Your task to perform on an android device: What's the weather today? Image 0: 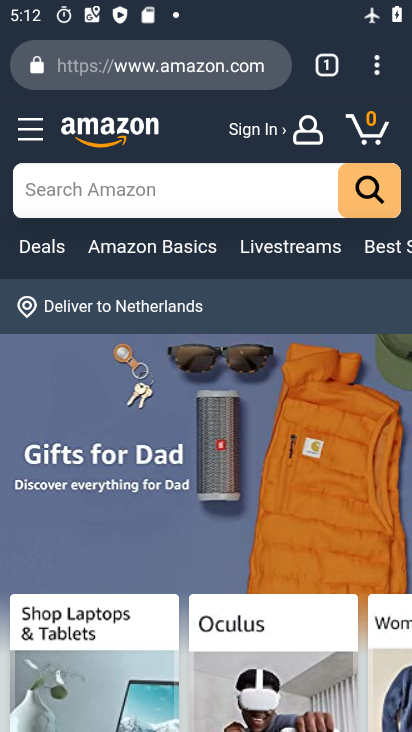
Step 0: press home button
Your task to perform on an android device: What's the weather today? Image 1: 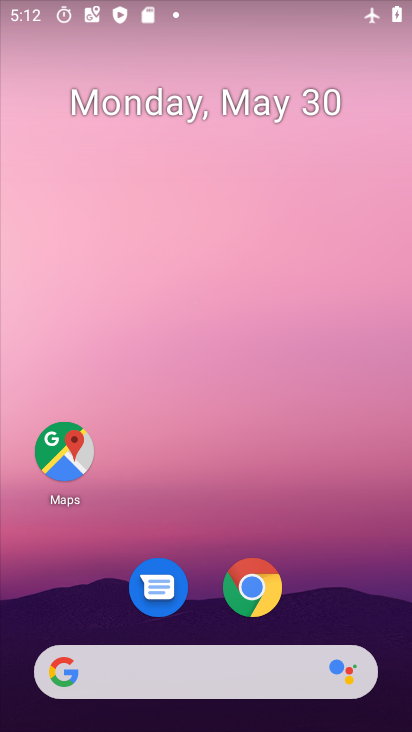
Step 1: drag from (310, 616) to (241, 165)
Your task to perform on an android device: What's the weather today? Image 2: 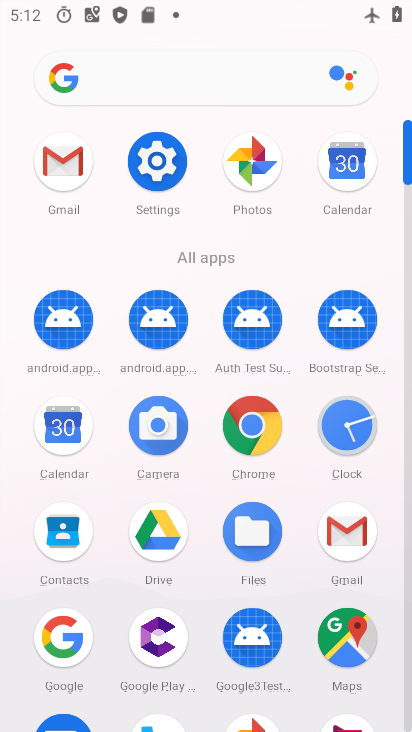
Step 2: click (61, 634)
Your task to perform on an android device: What's the weather today? Image 3: 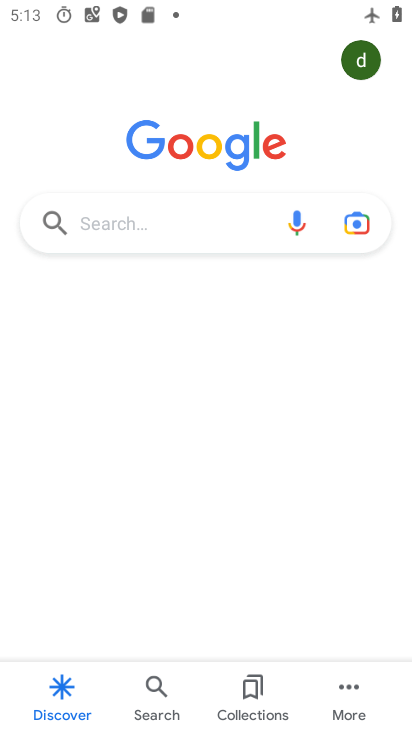
Step 3: click (206, 225)
Your task to perform on an android device: What's the weather today? Image 4: 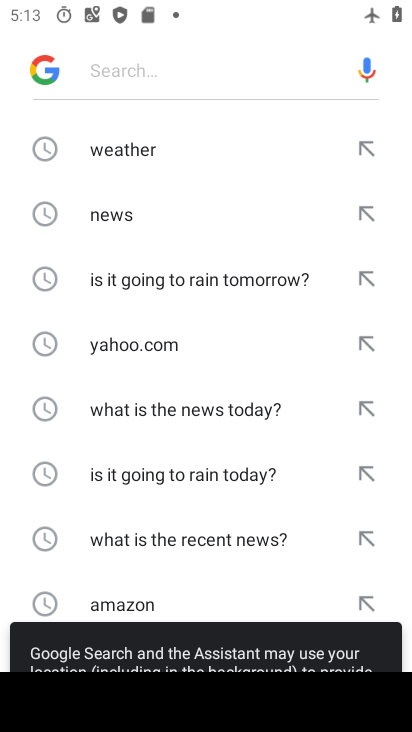
Step 4: click (122, 144)
Your task to perform on an android device: What's the weather today? Image 5: 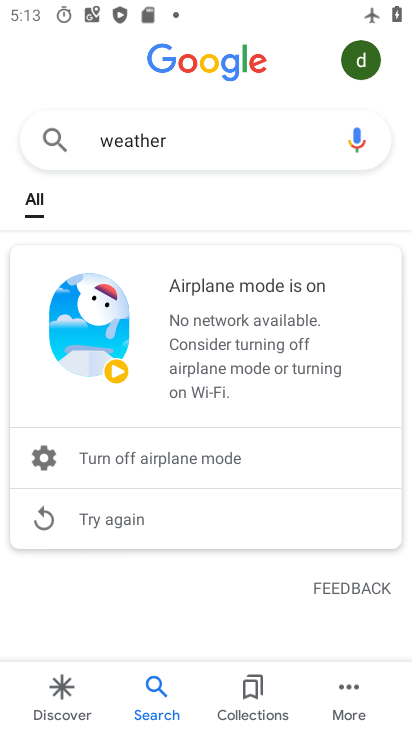
Step 5: task complete